Your task to perform on an android device: Open accessibility settings Image 0: 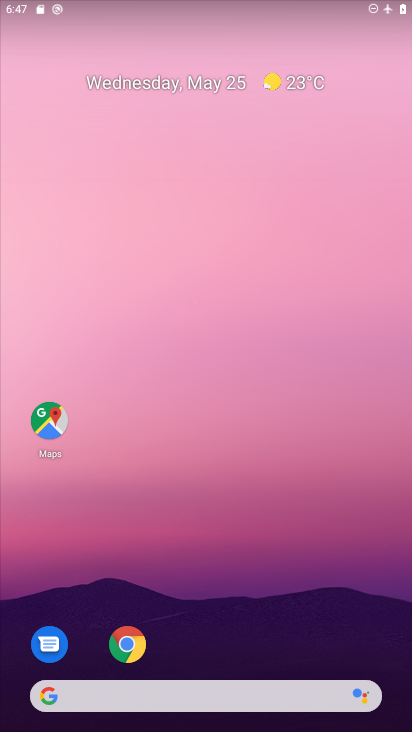
Step 0: drag from (355, 638) to (301, 2)
Your task to perform on an android device: Open accessibility settings Image 1: 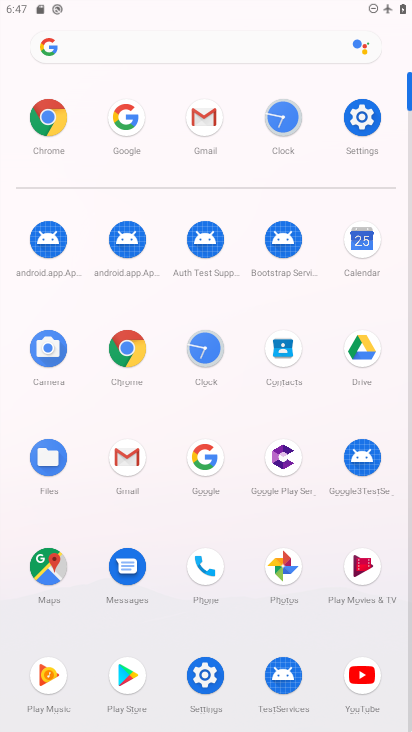
Step 1: click (355, 105)
Your task to perform on an android device: Open accessibility settings Image 2: 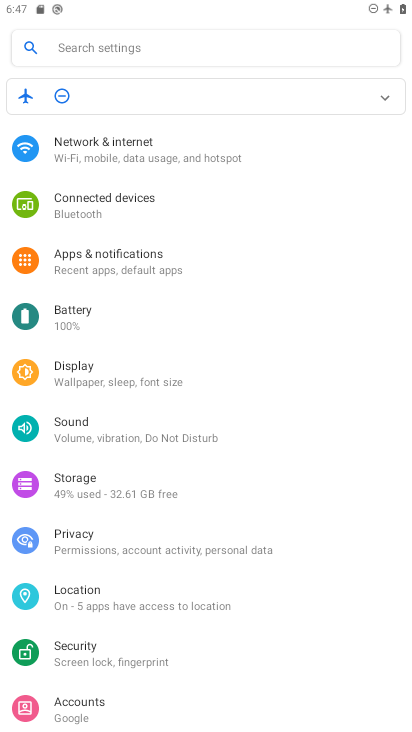
Step 2: drag from (196, 624) to (250, 102)
Your task to perform on an android device: Open accessibility settings Image 3: 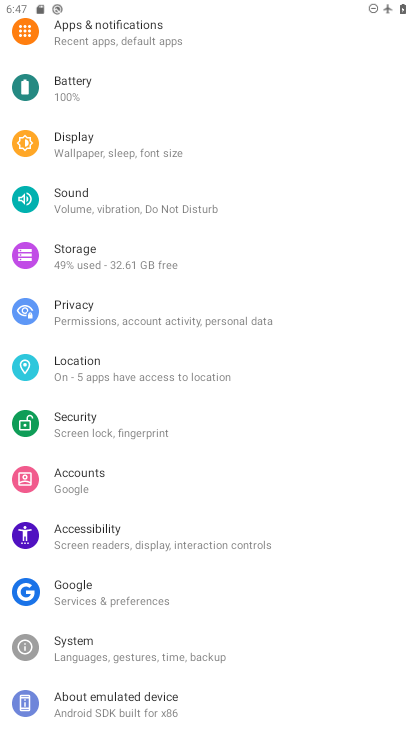
Step 3: click (144, 543)
Your task to perform on an android device: Open accessibility settings Image 4: 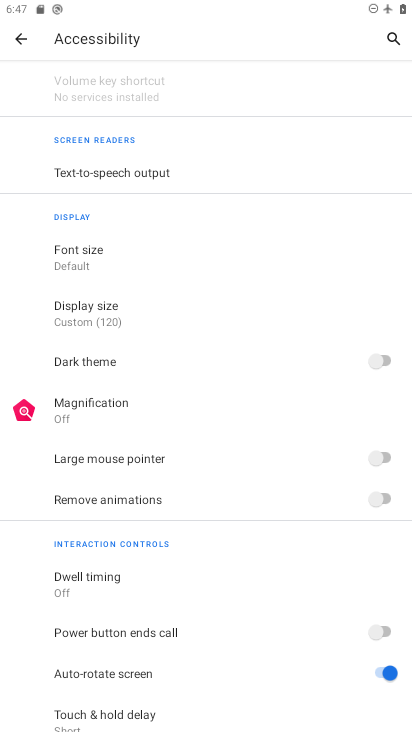
Step 4: task complete